Your task to perform on an android device: What's the weather going to be this weekend? Image 0: 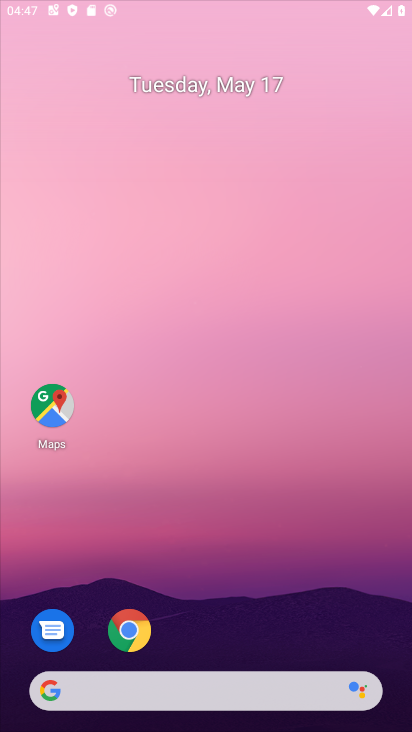
Step 0: click (242, 401)
Your task to perform on an android device: What's the weather going to be this weekend? Image 1: 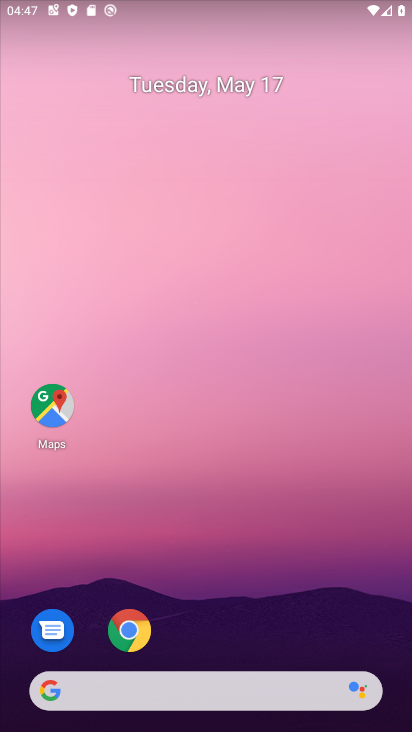
Step 1: drag from (290, 618) to (283, 88)
Your task to perform on an android device: What's the weather going to be this weekend? Image 2: 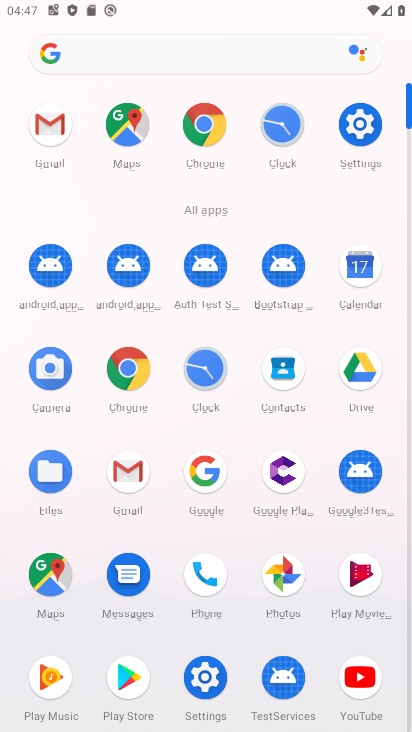
Step 2: click (210, 124)
Your task to perform on an android device: What's the weather going to be this weekend? Image 3: 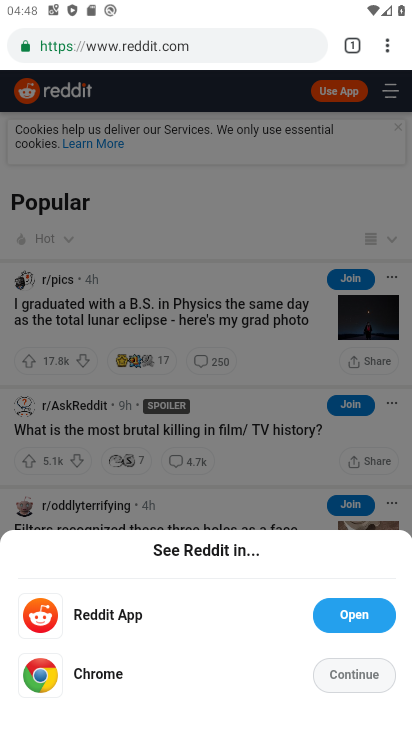
Step 3: click (197, 44)
Your task to perform on an android device: What's the weather going to be this weekend? Image 4: 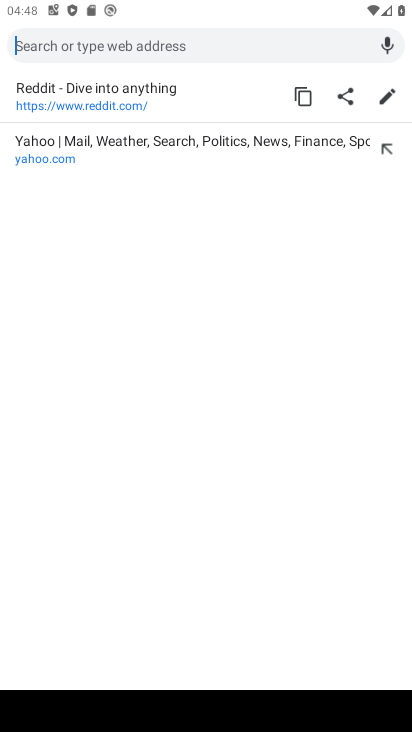
Step 4: type "What's the weather going to be this weekend?"
Your task to perform on an android device: What's the weather going to be this weekend? Image 5: 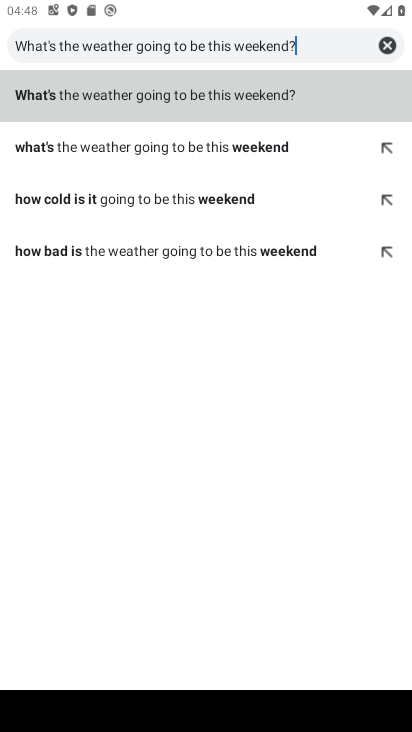
Step 5: click (114, 147)
Your task to perform on an android device: What's the weather going to be this weekend? Image 6: 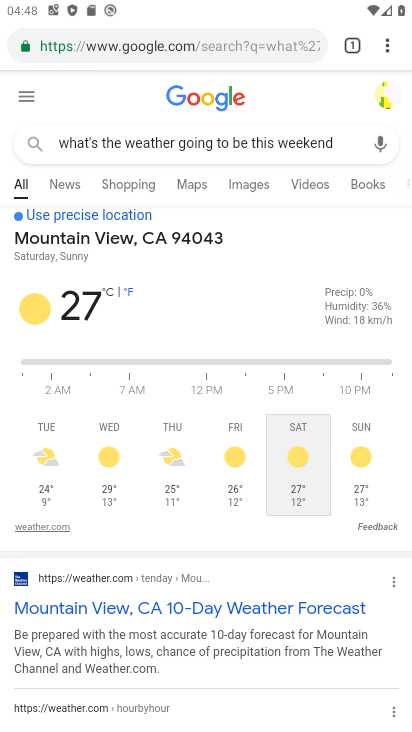
Step 6: task complete